Your task to perform on an android device: Go to location settings Image 0: 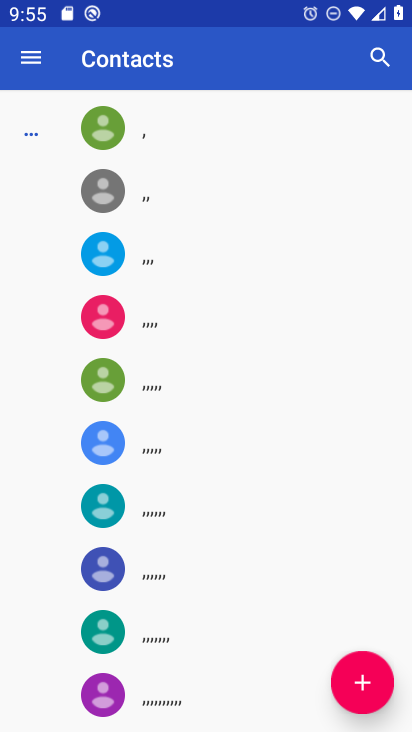
Step 0: press home button
Your task to perform on an android device: Go to location settings Image 1: 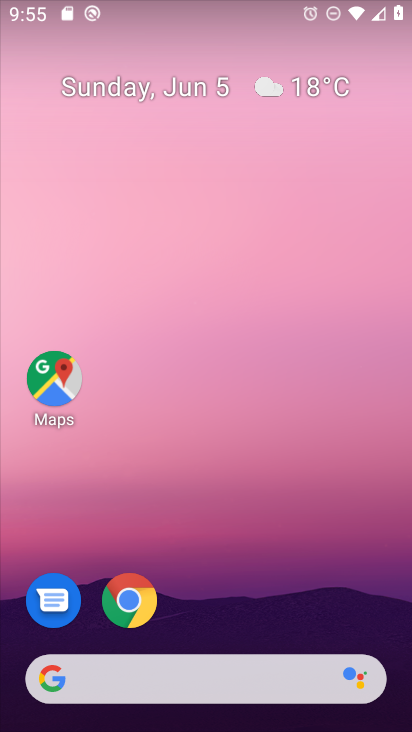
Step 1: drag from (239, 533) to (247, 27)
Your task to perform on an android device: Go to location settings Image 2: 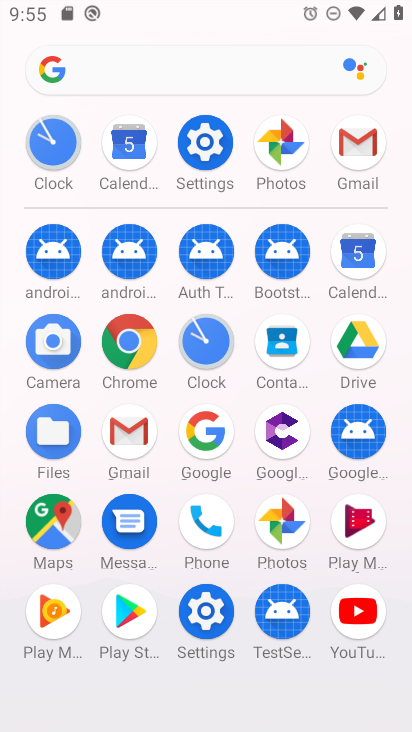
Step 2: click (206, 151)
Your task to perform on an android device: Go to location settings Image 3: 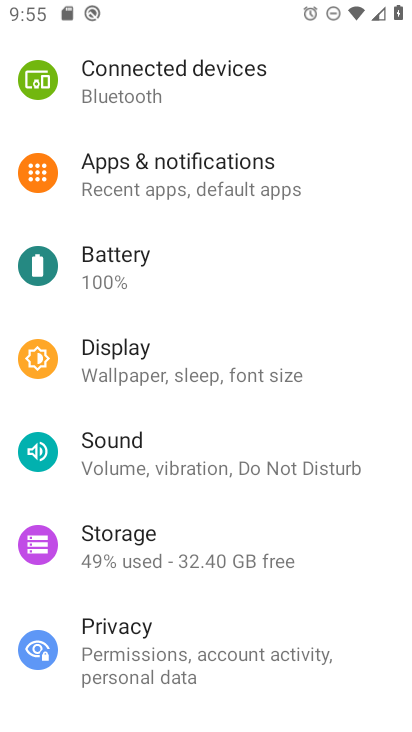
Step 3: drag from (215, 575) to (236, 250)
Your task to perform on an android device: Go to location settings Image 4: 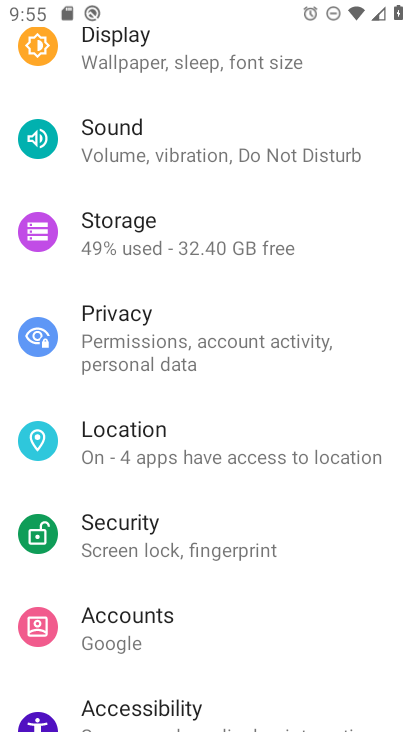
Step 4: click (241, 453)
Your task to perform on an android device: Go to location settings Image 5: 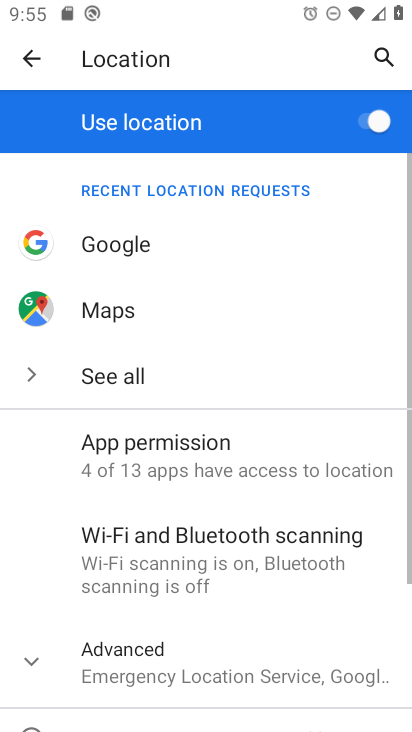
Step 5: task complete